Your task to perform on an android device: turn off smart reply in the gmail app Image 0: 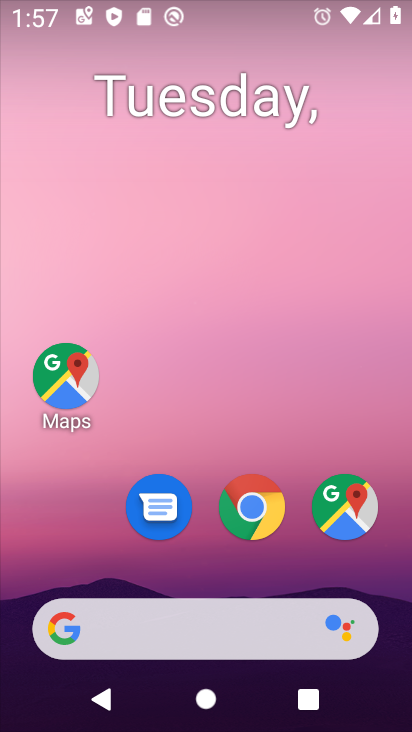
Step 0: drag from (282, 550) to (308, 180)
Your task to perform on an android device: turn off smart reply in the gmail app Image 1: 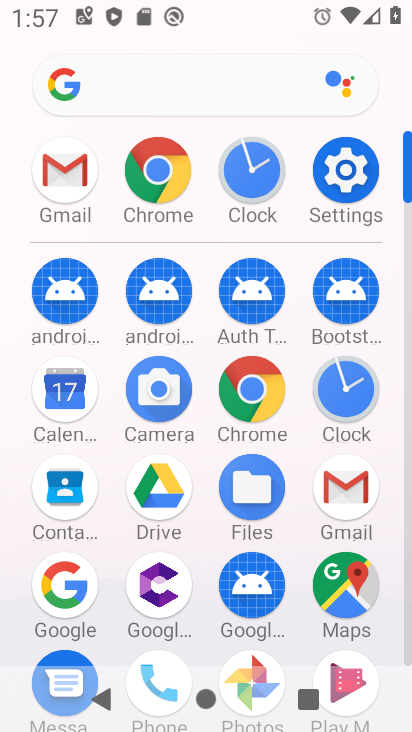
Step 1: click (351, 490)
Your task to perform on an android device: turn off smart reply in the gmail app Image 2: 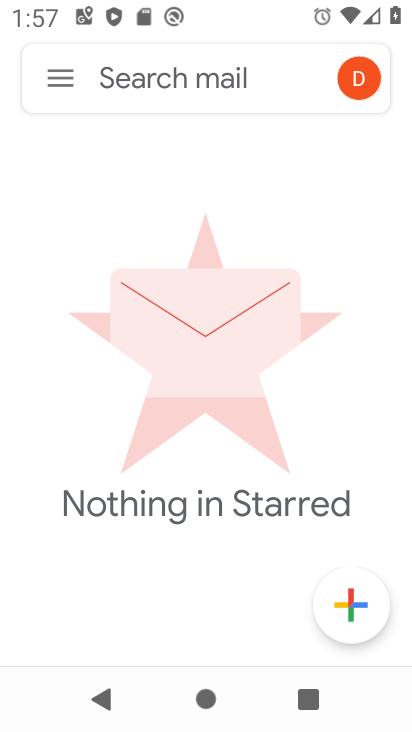
Step 2: click (57, 77)
Your task to perform on an android device: turn off smart reply in the gmail app Image 3: 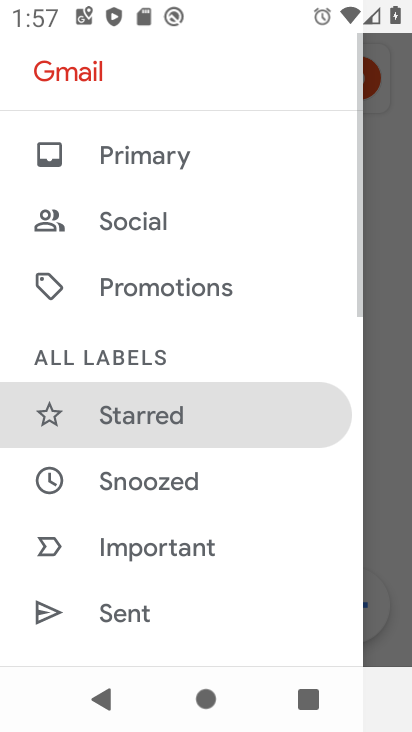
Step 3: drag from (190, 589) to (239, 215)
Your task to perform on an android device: turn off smart reply in the gmail app Image 4: 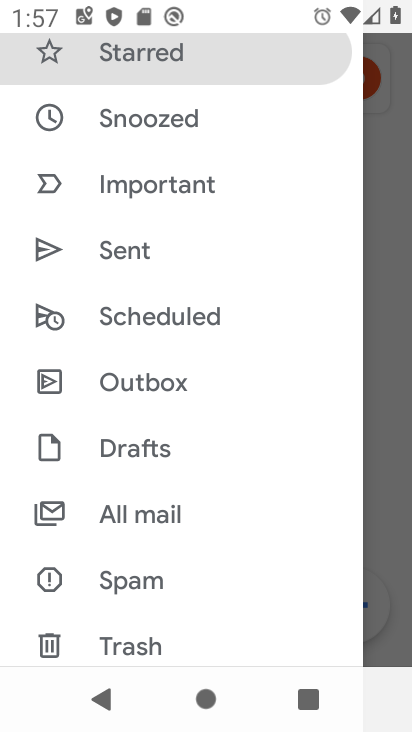
Step 4: drag from (187, 608) to (188, 293)
Your task to perform on an android device: turn off smart reply in the gmail app Image 5: 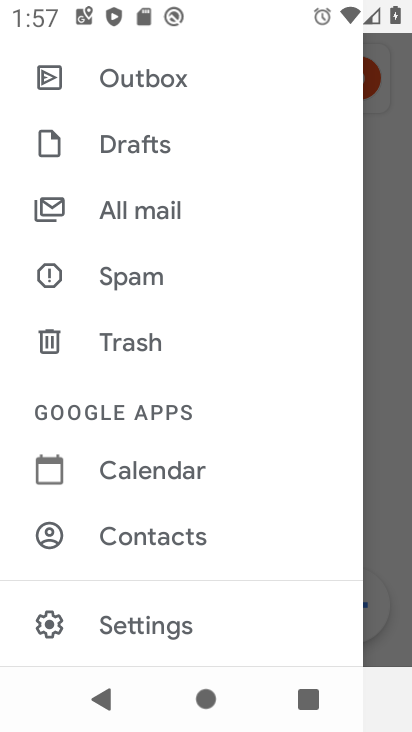
Step 5: click (134, 627)
Your task to perform on an android device: turn off smart reply in the gmail app Image 6: 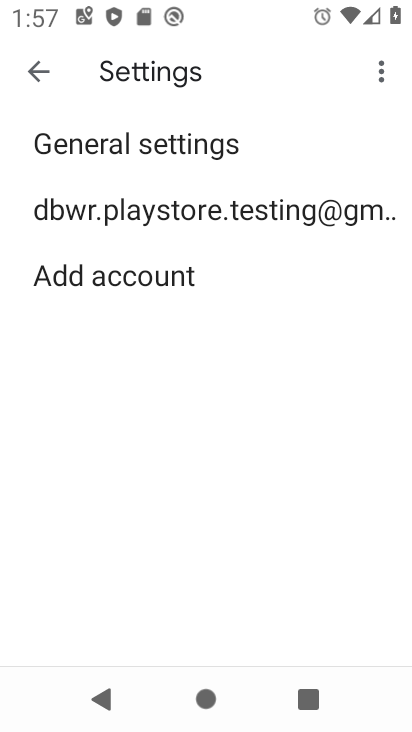
Step 6: click (220, 211)
Your task to perform on an android device: turn off smart reply in the gmail app Image 7: 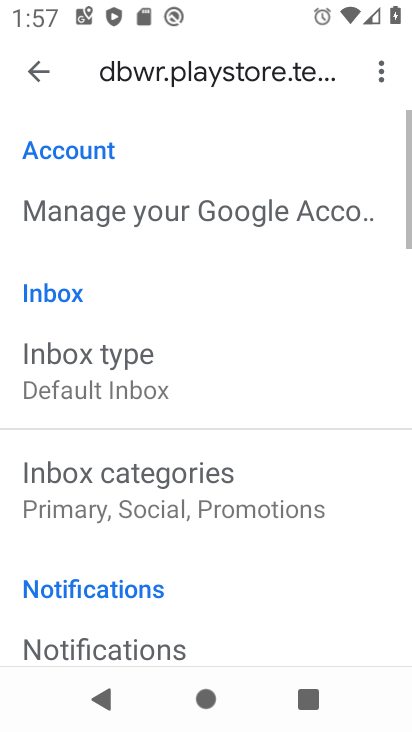
Step 7: drag from (212, 584) to (234, 240)
Your task to perform on an android device: turn off smart reply in the gmail app Image 8: 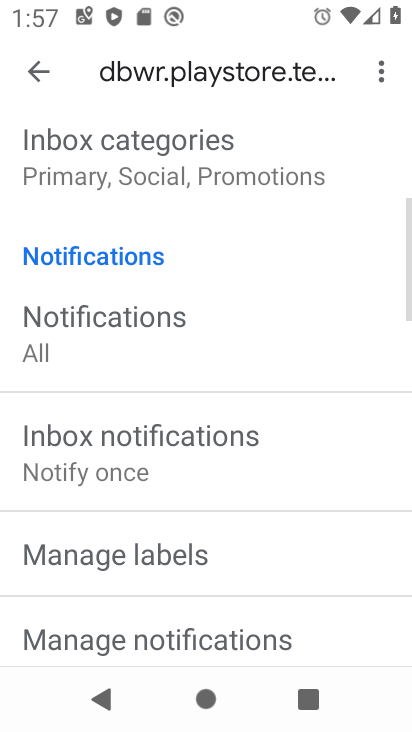
Step 8: drag from (220, 520) to (275, 182)
Your task to perform on an android device: turn off smart reply in the gmail app Image 9: 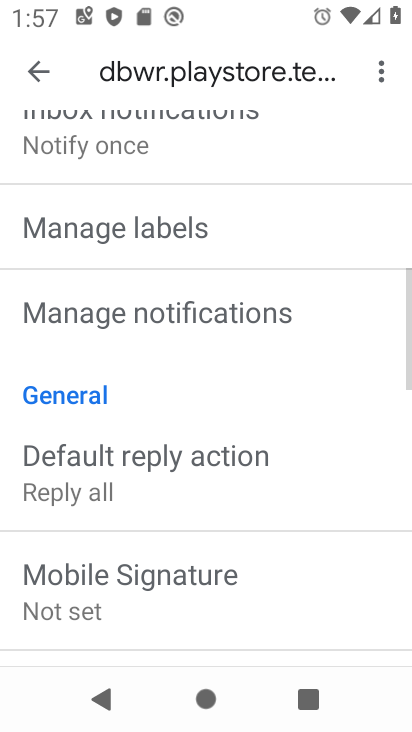
Step 9: drag from (233, 509) to (293, 198)
Your task to perform on an android device: turn off smart reply in the gmail app Image 10: 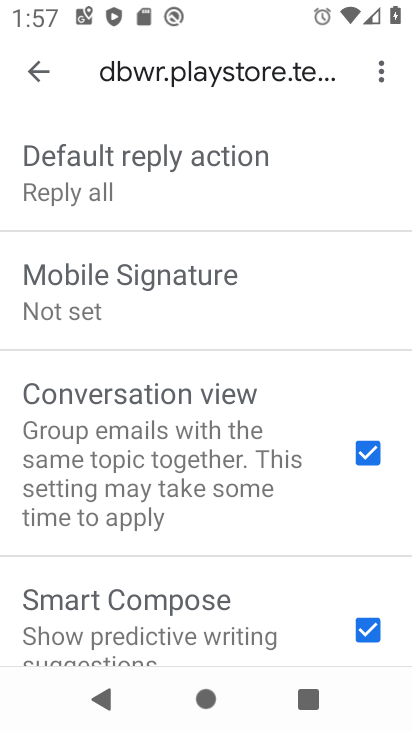
Step 10: drag from (221, 571) to (264, 441)
Your task to perform on an android device: turn off smart reply in the gmail app Image 11: 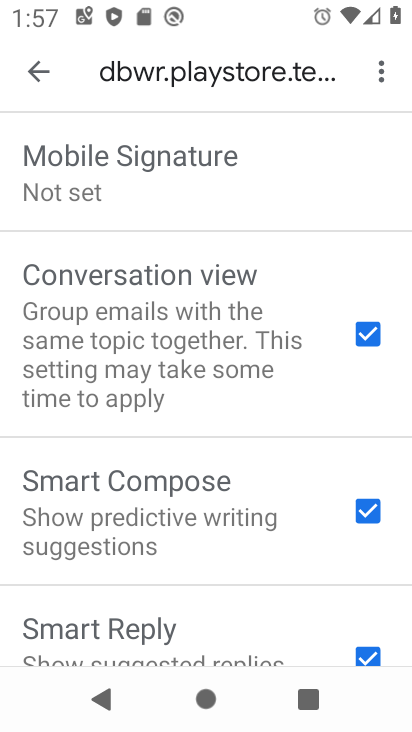
Step 11: drag from (358, 633) to (325, 502)
Your task to perform on an android device: turn off smart reply in the gmail app Image 12: 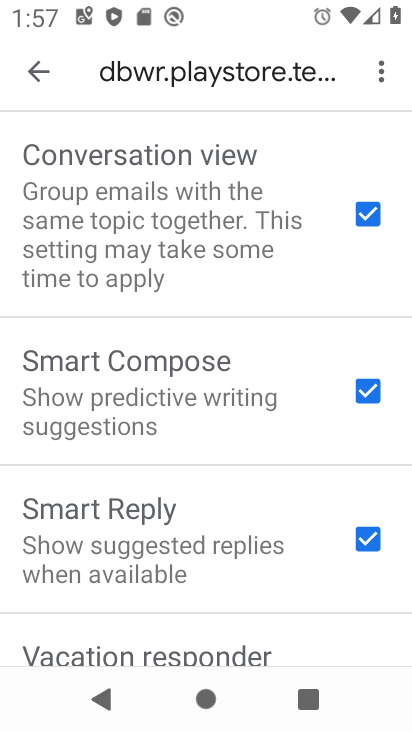
Step 12: click (364, 525)
Your task to perform on an android device: turn off smart reply in the gmail app Image 13: 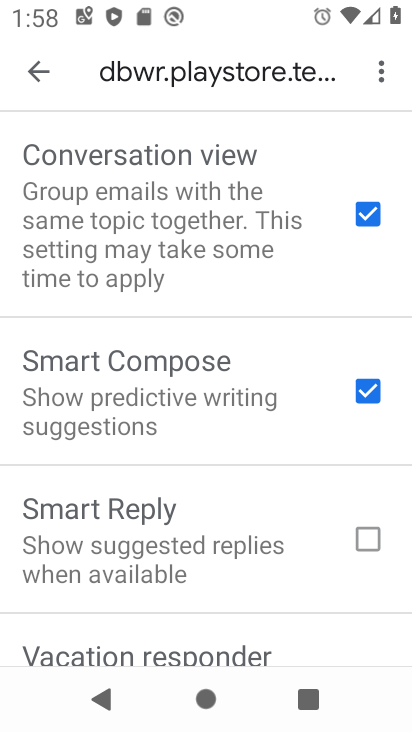
Step 13: task complete